Your task to perform on an android device: Open the web browser Image 0: 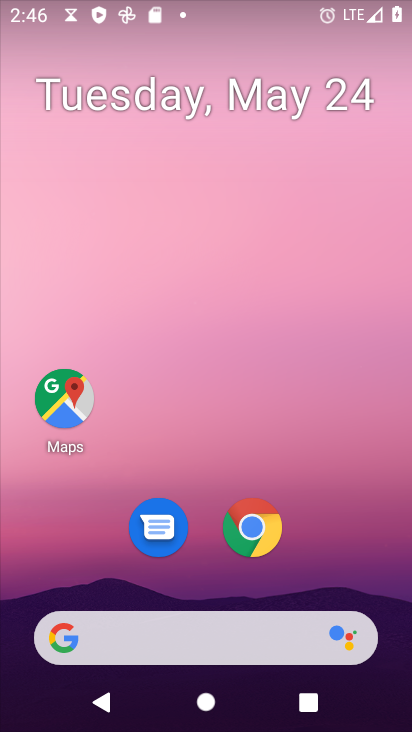
Step 0: click (267, 533)
Your task to perform on an android device: Open the web browser Image 1: 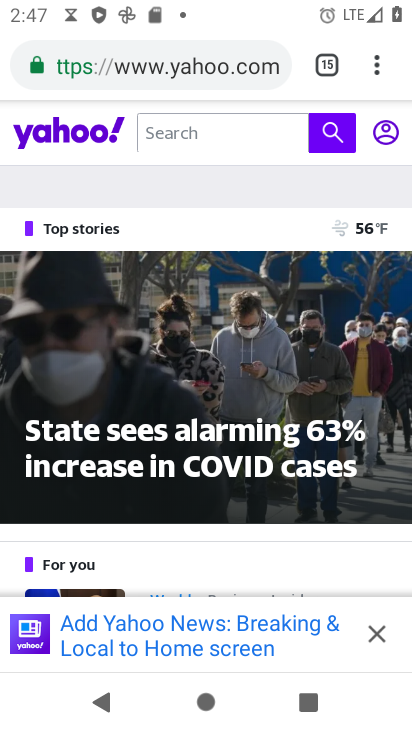
Step 1: task complete